Your task to perform on an android device: Go to sound settings Image 0: 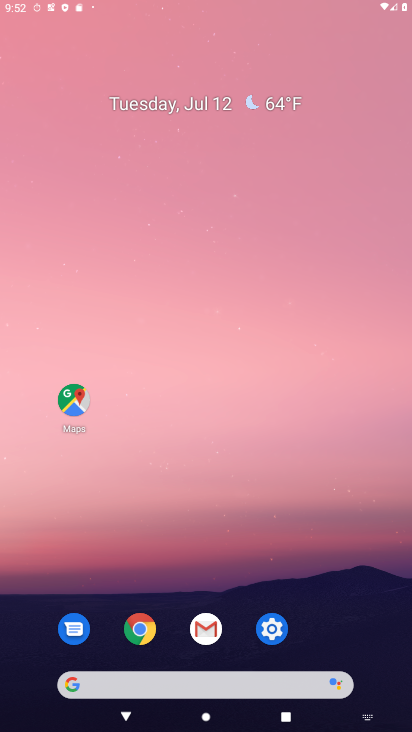
Step 0: press home button
Your task to perform on an android device: Go to sound settings Image 1: 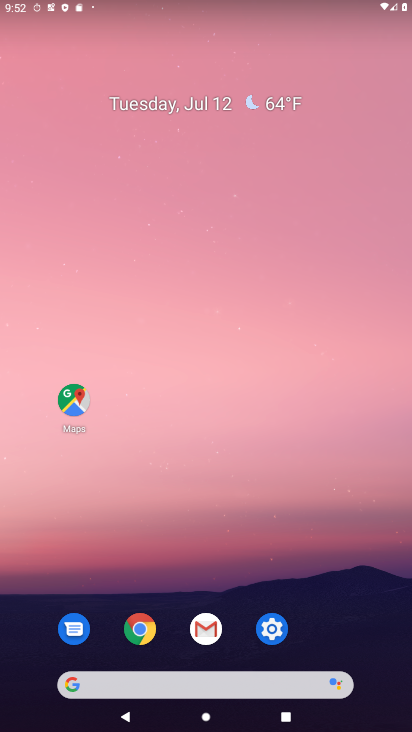
Step 1: click (284, 621)
Your task to perform on an android device: Go to sound settings Image 2: 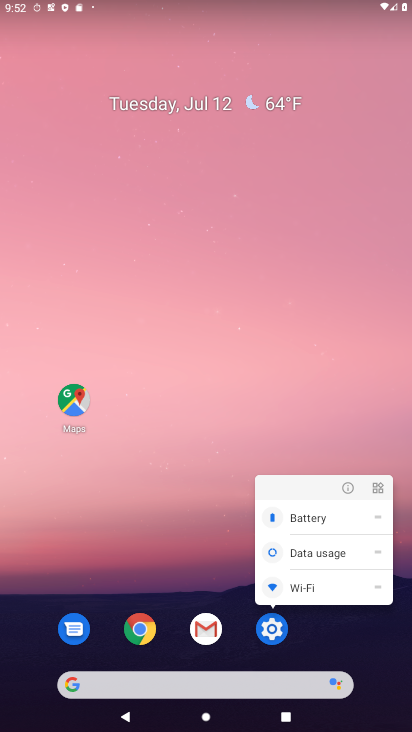
Step 2: click (273, 630)
Your task to perform on an android device: Go to sound settings Image 3: 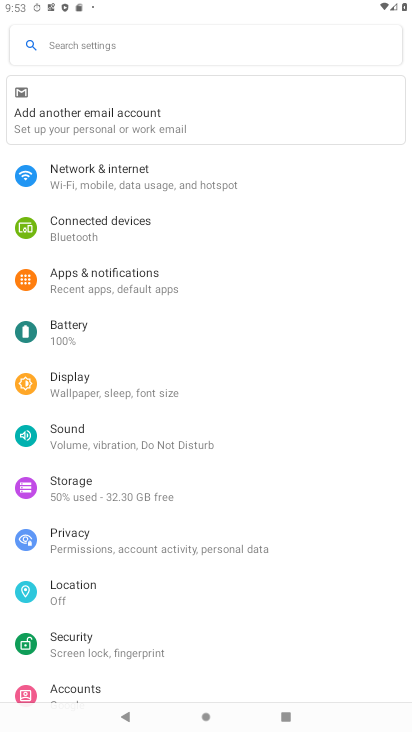
Step 3: click (80, 437)
Your task to perform on an android device: Go to sound settings Image 4: 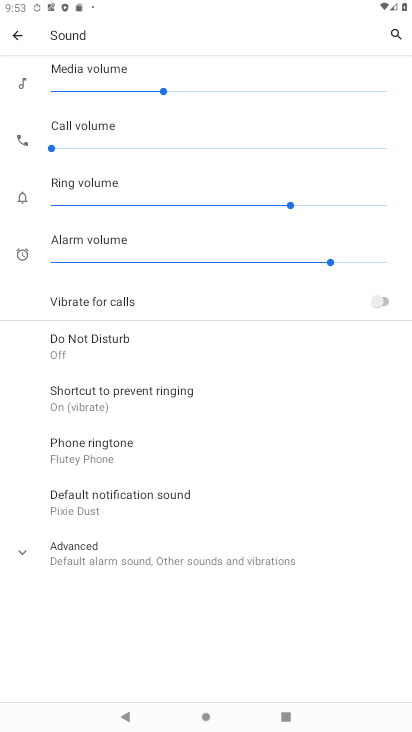
Step 4: task complete